Your task to perform on an android device: Go to Android settings Image 0: 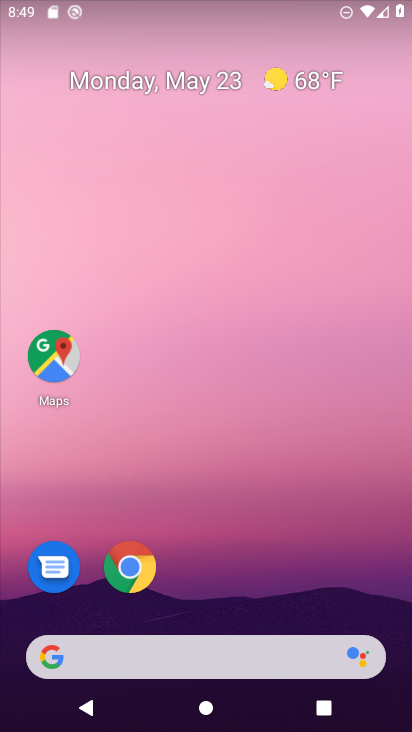
Step 0: drag from (171, 624) to (29, 121)
Your task to perform on an android device: Go to Android settings Image 1: 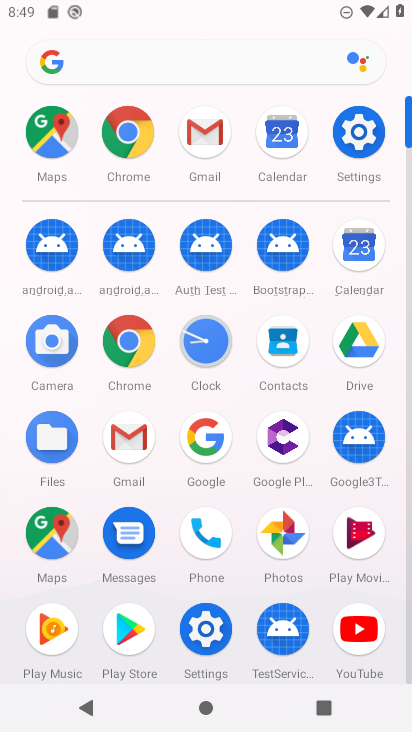
Step 1: click (356, 132)
Your task to perform on an android device: Go to Android settings Image 2: 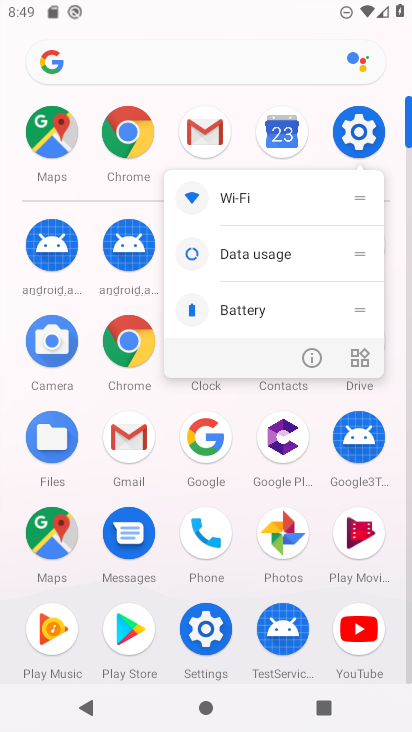
Step 2: click (315, 357)
Your task to perform on an android device: Go to Android settings Image 3: 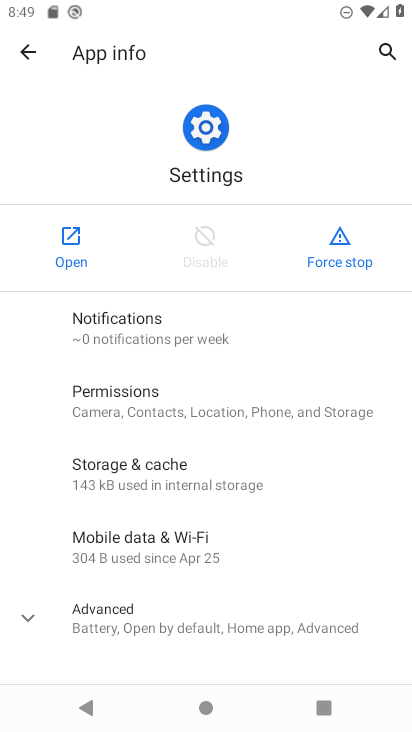
Step 3: click (72, 248)
Your task to perform on an android device: Go to Android settings Image 4: 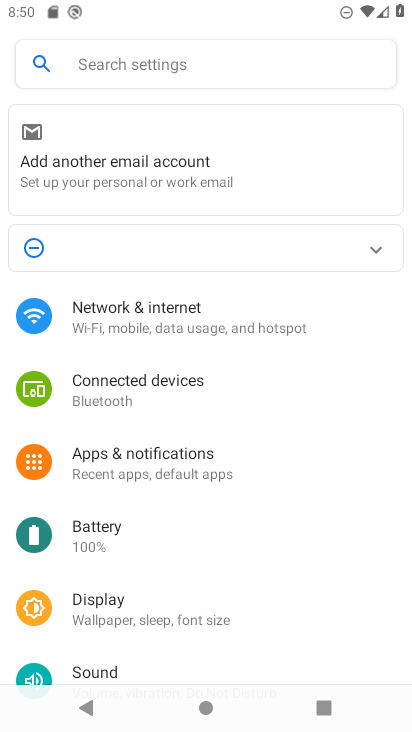
Step 4: drag from (170, 646) to (247, 107)
Your task to perform on an android device: Go to Android settings Image 5: 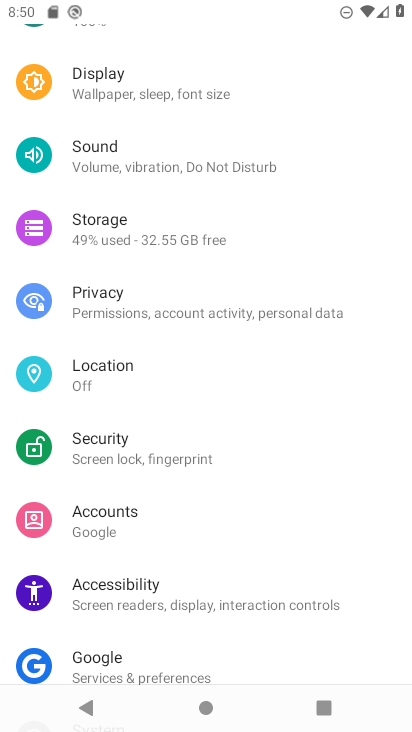
Step 5: drag from (221, 668) to (281, 46)
Your task to perform on an android device: Go to Android settings Image 6: 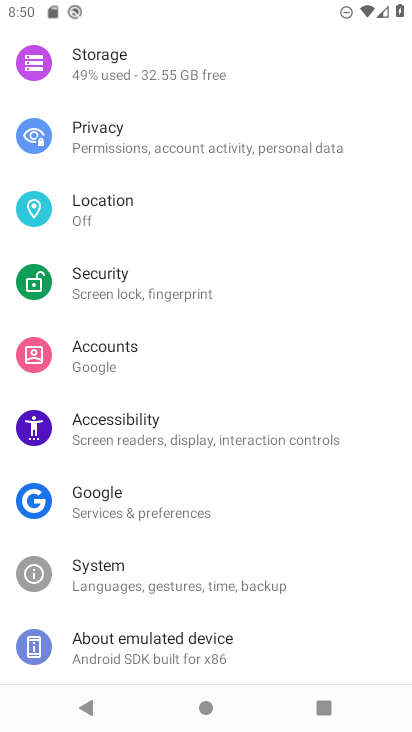
Step 6: click (189, 651)
Your task to perform on an android device: Go to Android settings Image 7: 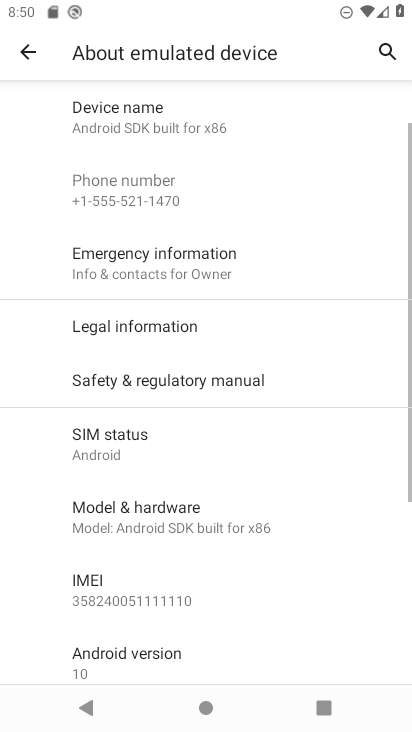
Step 7: drag from (191, 625) to (272, 135)
Your task to perform on an android device: Go to Android settings Image 8: 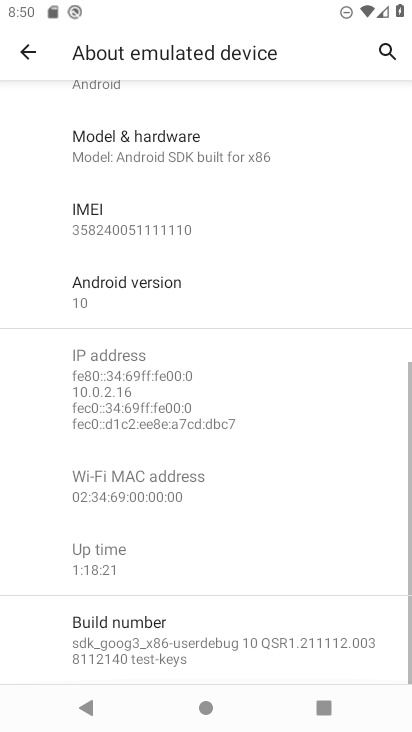
Step 8: drag from (260, 116) to (231, 692)
Your task to perform on an android device: Go to Android settings Image 9: 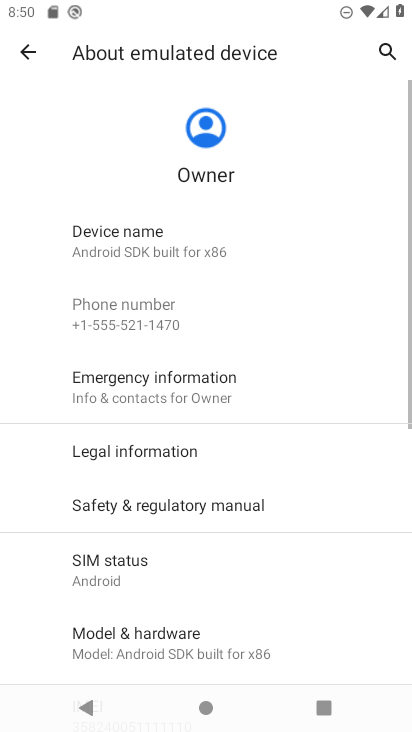
Step 9: drag from (195, 580) to (228, 250)
Your task to perform on an android device: Go to Android settings Image 10: 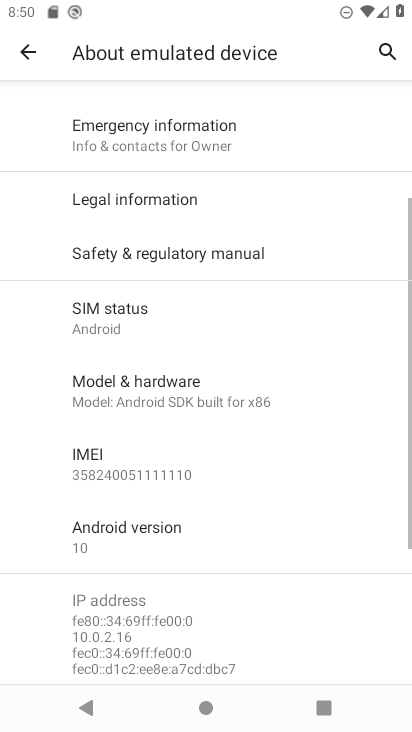
Step 10: click (141, 536)
Your task to perform on an android device: Go to Android settings Image 11: 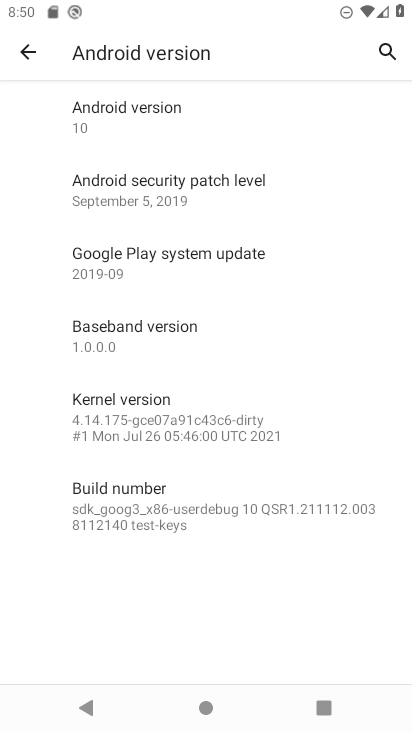
Step 11: task complete